Your task to perform on an android device: Open calendar and show me the first week of next month Image 0: 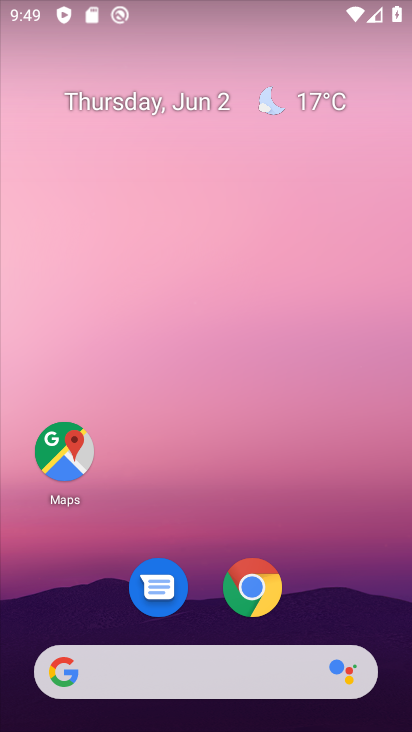
Step 0: press home button
Your task to perform on an android device: Open calendar and show me the first week of next month Image 1: 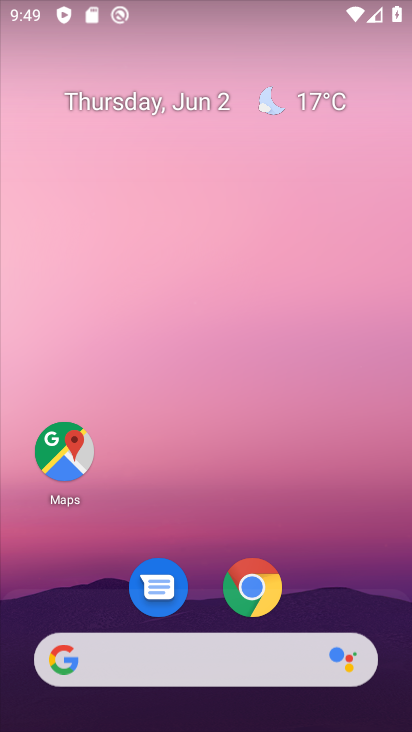
Step 1: drag from (207, 627) to (224, 63)
Your task to perform on an android device: Open calendar and show me the first week of next month Image 2: 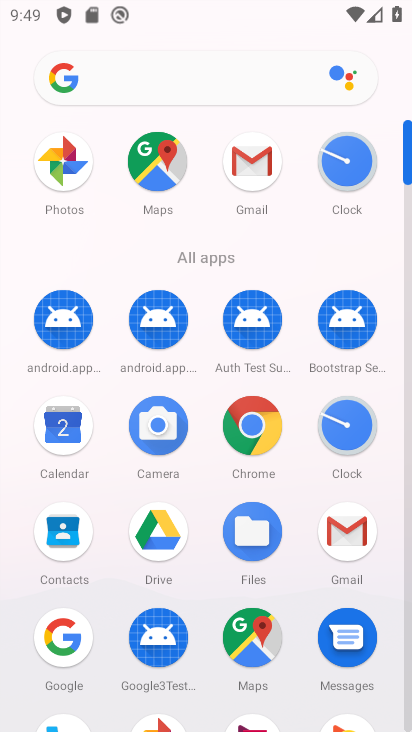
Step 2: click (66, 430)
Your task to perform on an android device: Open calendar and show me the first week of next month Image 3: 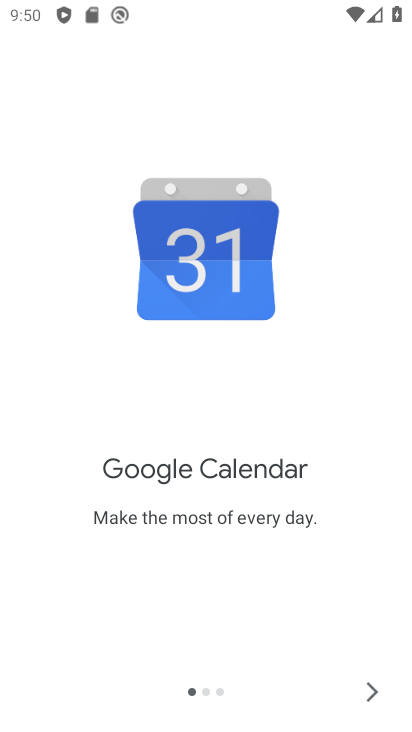
Step 3: click (374, 698)
Your task to perform on an android device: Open calendar and show me the first week of next month Image 4: 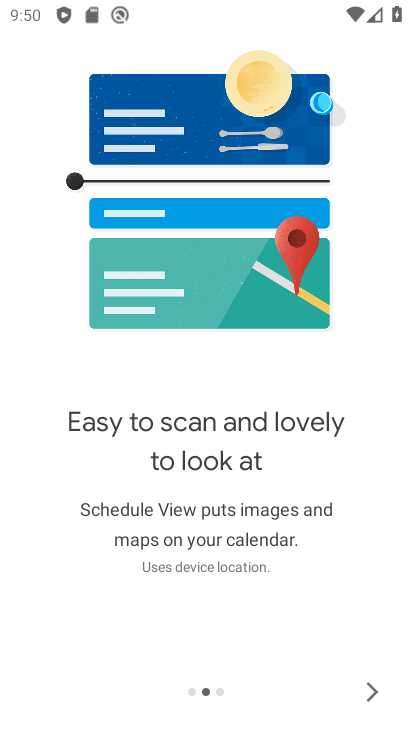
Step 4: click (374, 698)
Your task to perform on an android device: Open calendar and show me the first week of next month Image 5: 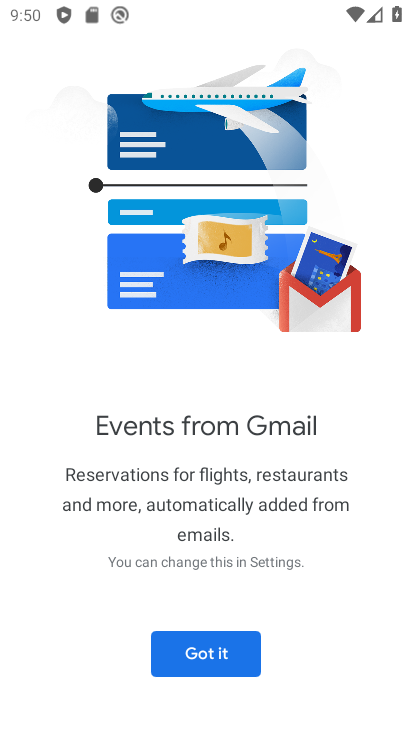
Step 5: click (219, 664)
Your task to perform on an android device: Open calendar and show me the first week of next month Image 6: 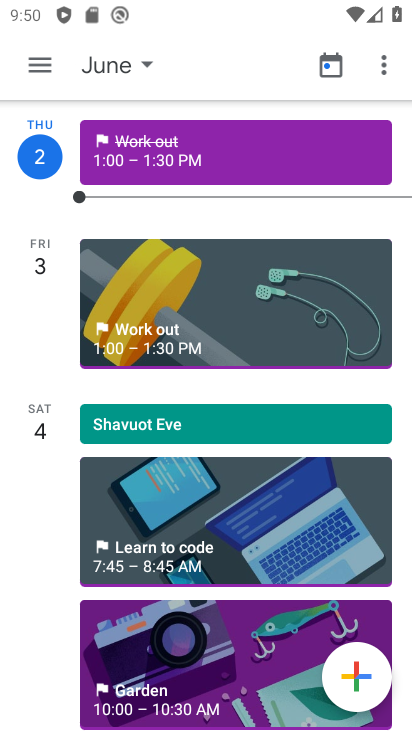
Step 6: click (138, 65)
Your task to perform on an android device: Open calendar and show me the first week of next month Image 7: 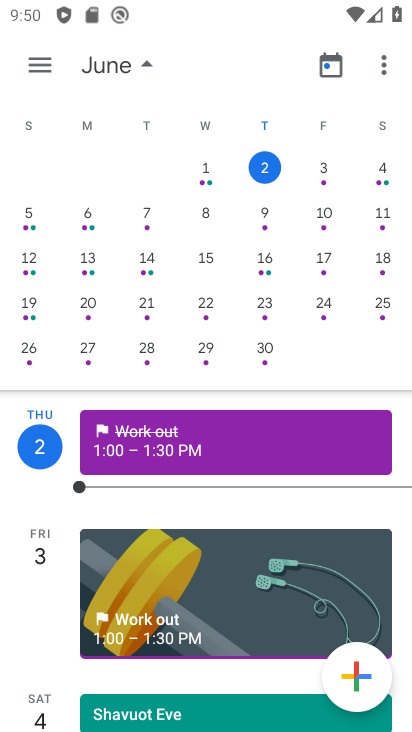
Step 7: drag from (359, 226) to (2, 220)
Your task to perform on an android device: Open calendar and show me the first week of next month Image 8: 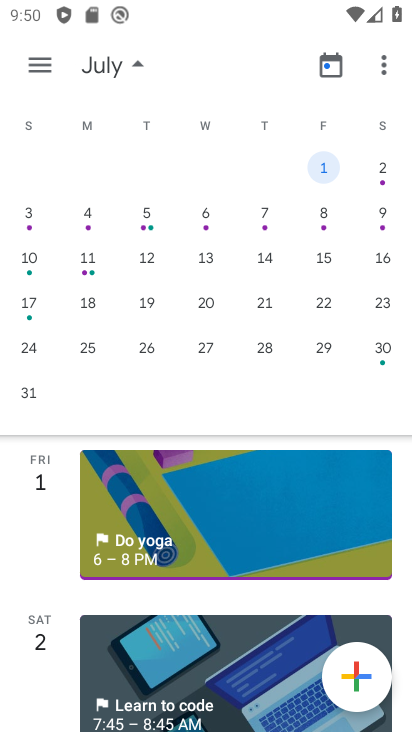
Step 8: click (34, 212)
Your task to perform on an android device: Open calendar and show me the first week of next month Image 9: 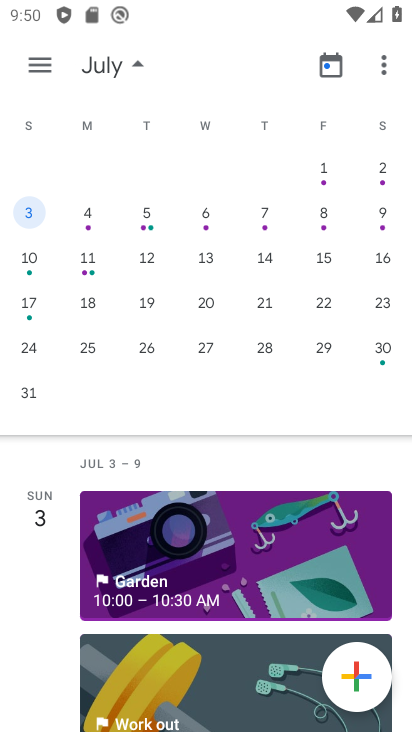
Step 9: click (133, 55)
Your task to perform on an android device: Open calendar and show me the first week of next month Image 10: 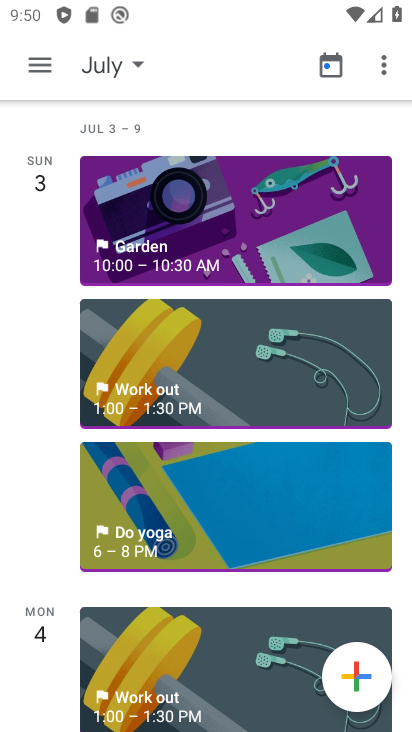
Step 10: drag from (32, 478) to (60, 29)
Your task to perform on an android device: Open calendar and show me the first week of next month Image 11: 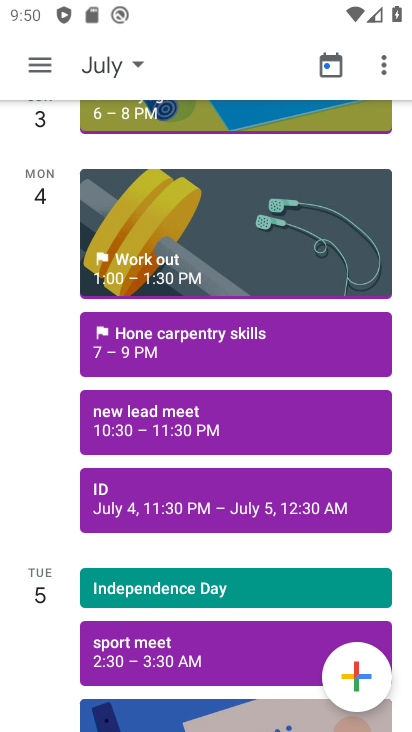
Step 11: drag from (54, 488) to (38, 165)
Your task to perform on an android device: Open calendar and show me the first week of next month Image 12: 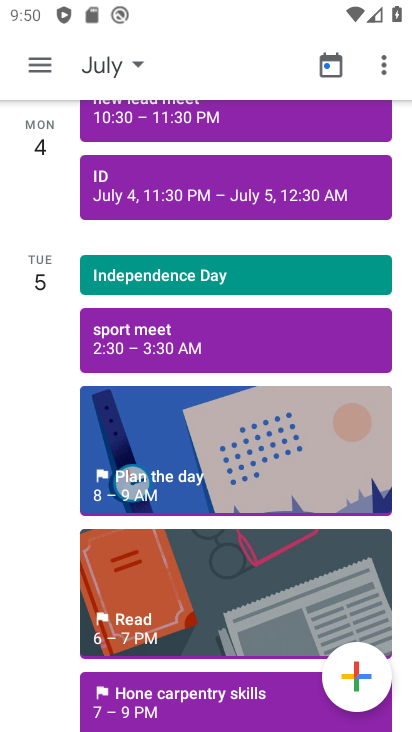
Step 12: click (38, 86)
Your task to perform on an android device: Open calendar and show me the first week of next month Image 13: 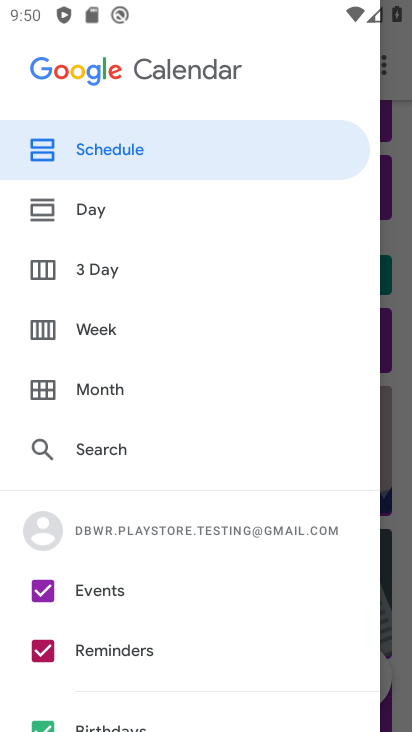
Step 13: click (126, 144)
Your task to perform on an android device: Open calendar and show me the first week of next month Image 14: 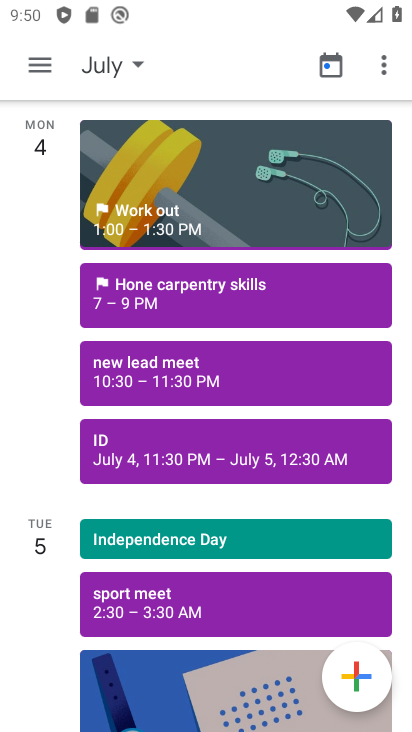
Step 14: task complete